Your task to perform on an android device: install app "Calculator" Image 0: 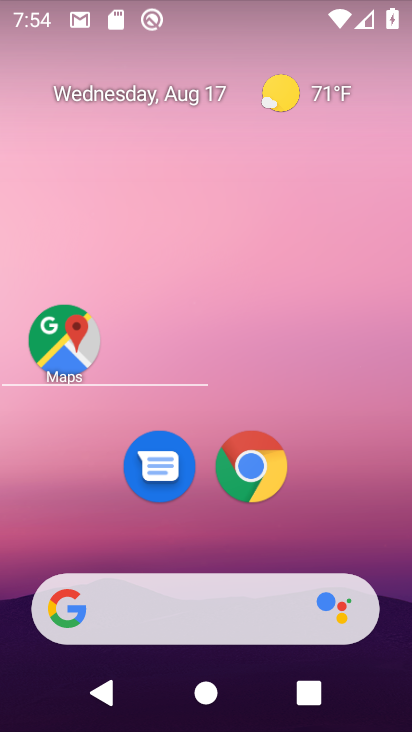
Step 0: click (198, 209)
Your task to perform on an android device: install app "Calculator" Image 1: 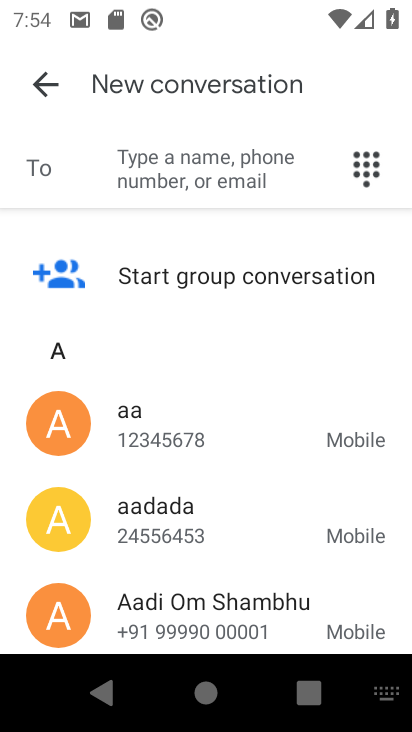
Step 1: press home button
Your task to perform on an android device: install app "Calculator" Image 2: 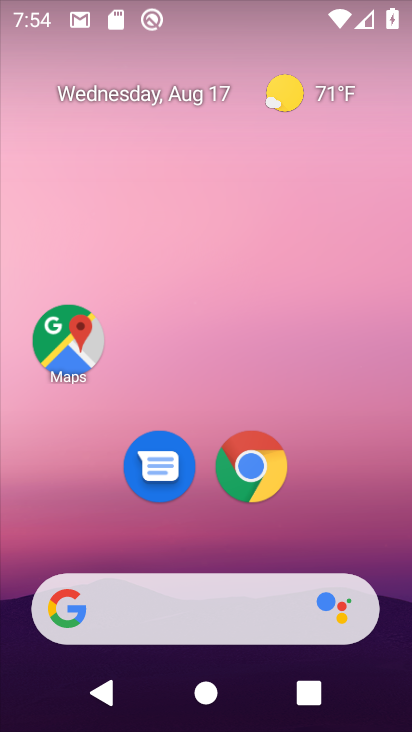
Step 2: drag from (181, 544) to (87, 4)
Your task to perform on an android device: install app "Calculator" Image 3: 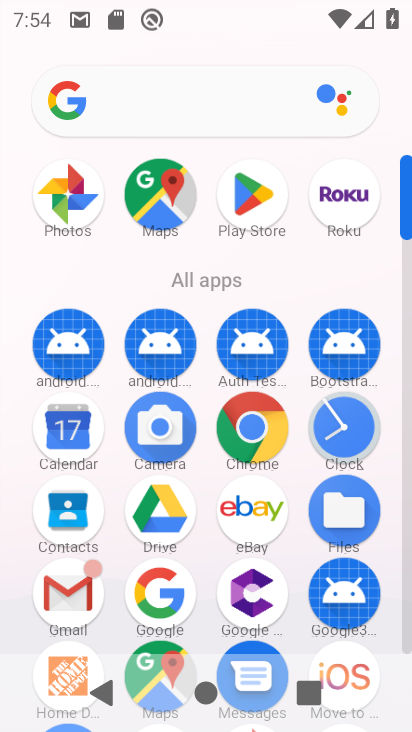
Step 3: click (259, 211)
Your task to perform on an android device: install app "Calculator" Image 4: 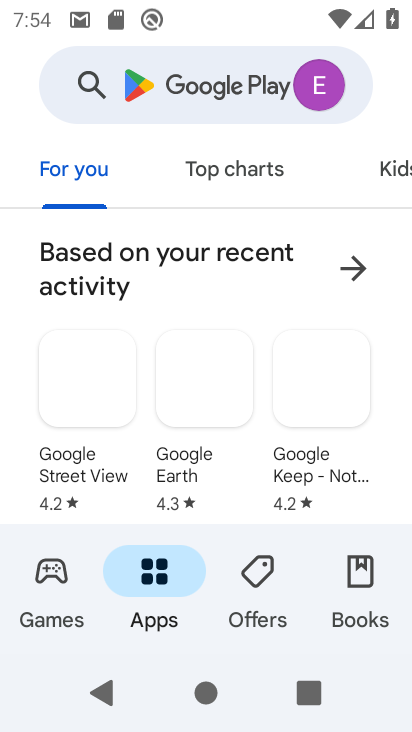
Step 4: click (173, 74)
Your task to perform on an android device: install app "Calculator" Image 5: 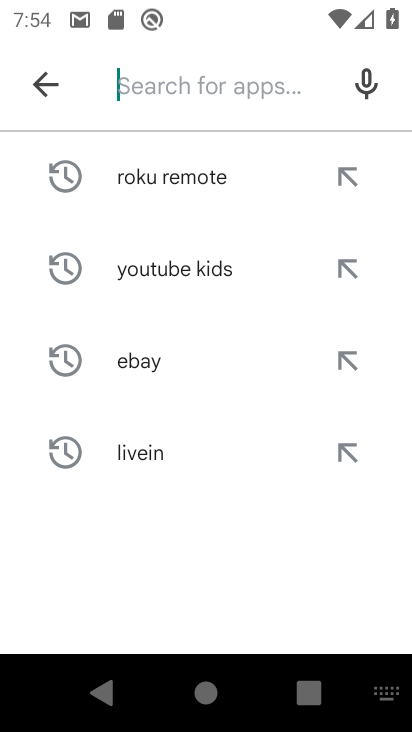
Step 5: type "calculator"
Your task to perform on an android device: install app "Calculator" Image 6: 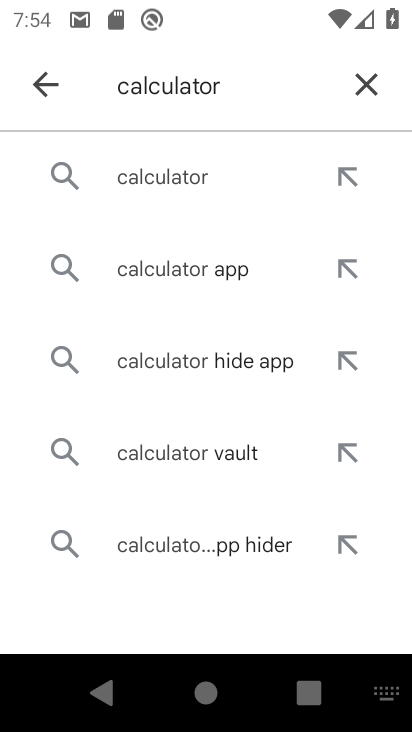
Step 6: click (147, 179)
Your task to perform on an android device: install app "Calculator" Image 7: 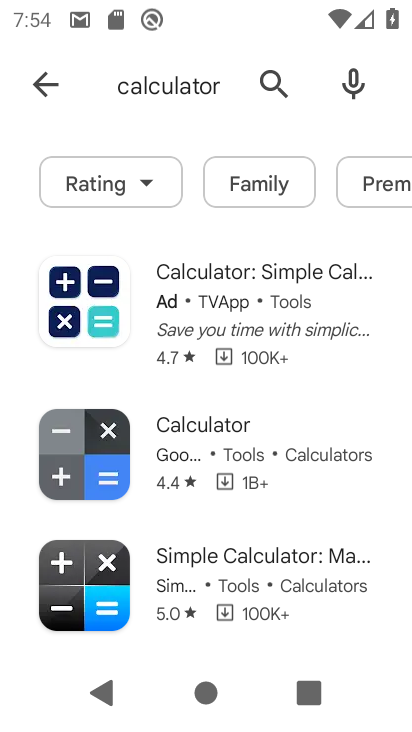
Step 7: click (204, 438)
Your task to perform on an android device: install app "Calculator" Image 8: 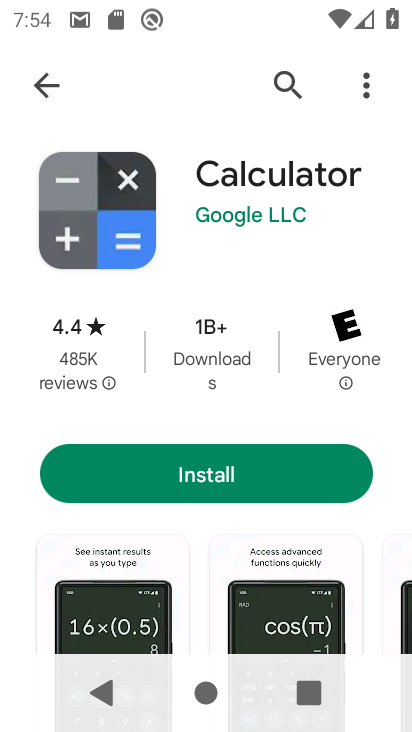
Step 8: click (228, 485)
Your task to perform on an android device: install app "Calculator" Image 9: 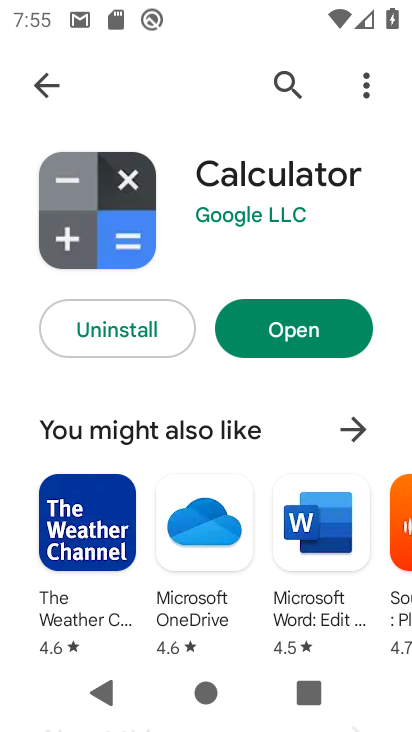
Step 9: task complete